Your task to perform on an android device: turn notification dots on Image 0: 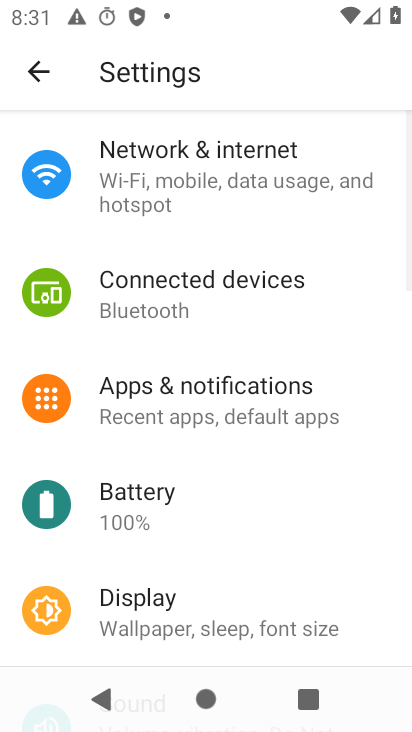
Step 0: click (202, 392)
Your task to perform on an android device: turn notification dots on Image 1: 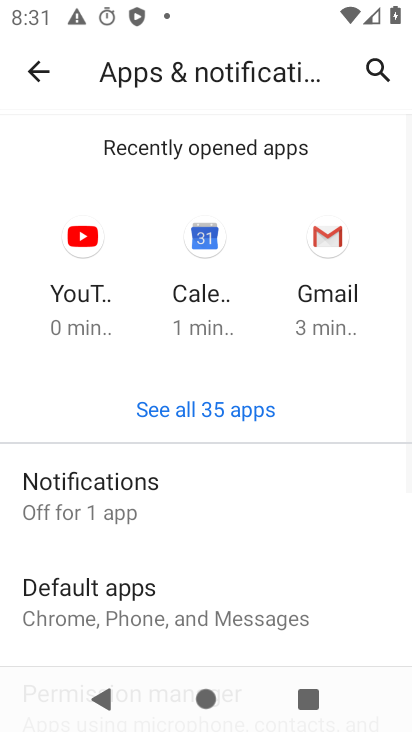
Step 1: click (136, 502)
Your task to perform on an android device: turn notification dots on Image 2: 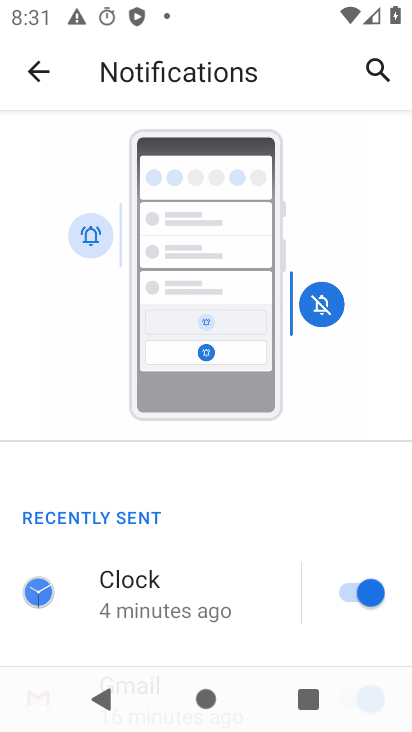
Step 2: drag from (231, 636) to (373, 44)
Your task to perform on an android device: turn notification dots on Image 3: 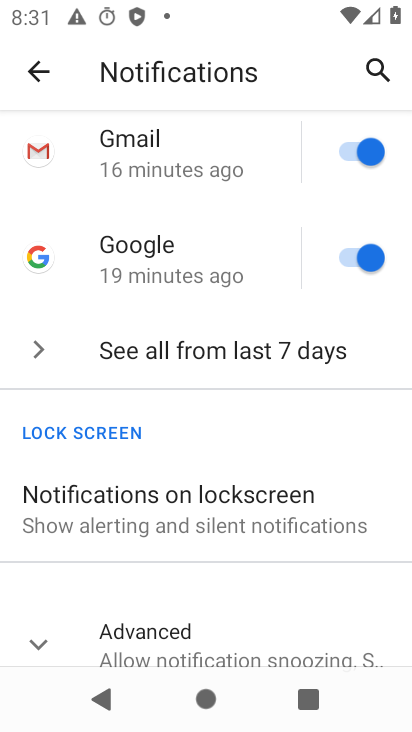
Step 3: drag from (261, 590) to (325, 177)
Your task to perform on an android device: turn notification dots on Image 4: 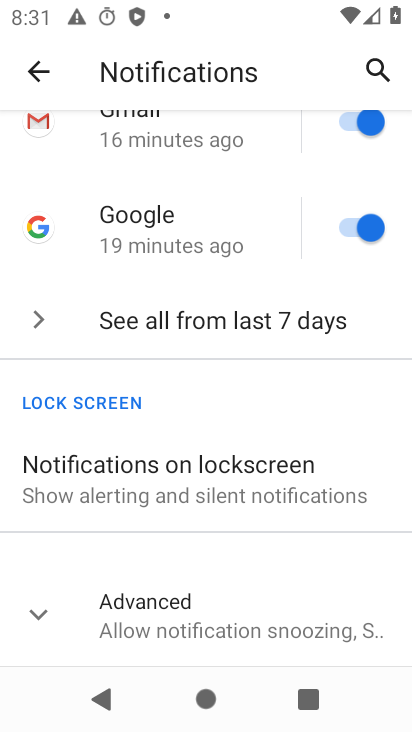
Step 4: click (207, 628)
Your task to perform on an android device: turn notification dots on Image 5: 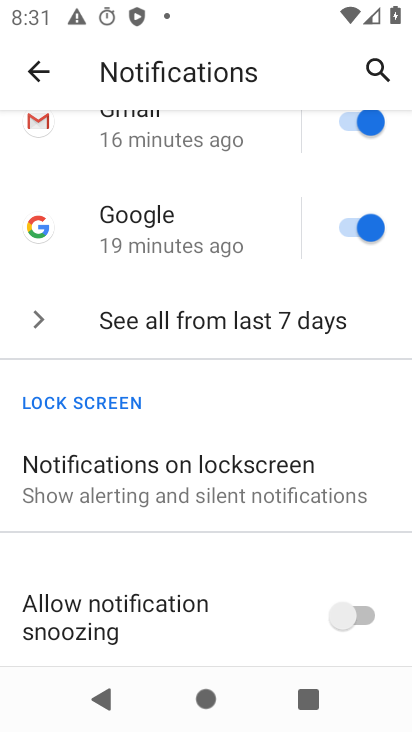
Step 5: task complete